Your task to perform on an android device: turn off priority inbox in the gmail app Image 0: 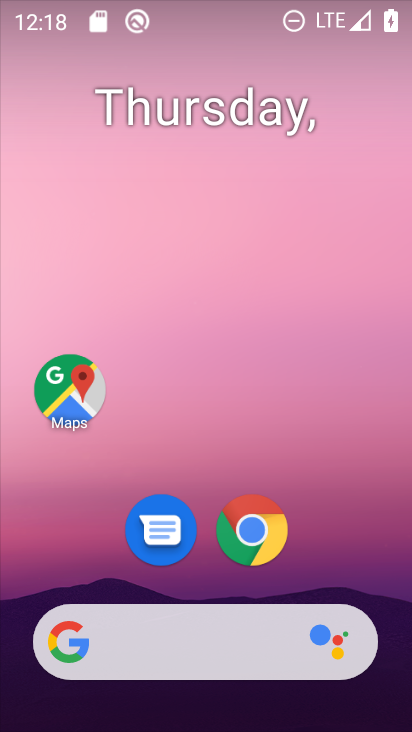
Step 0: drag from (192, 629) to (5, 83)
Your task to perform on an android device: turn off priority inbox in the gmail app Image 1: 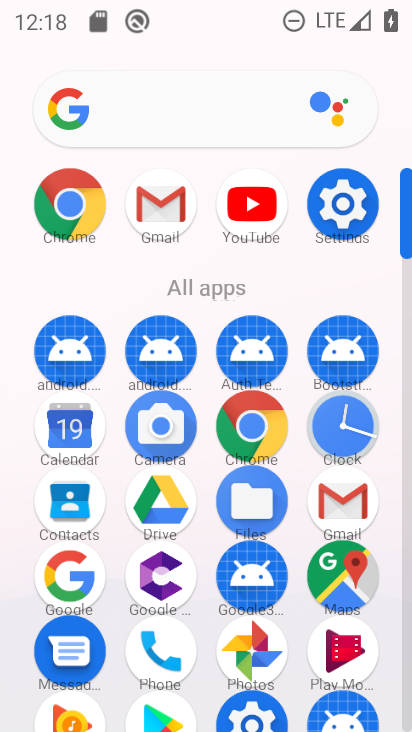
Step 1: click (149, 196)
Your task to perform on an android device: turn off priority inbox in the gmail app Image 2: 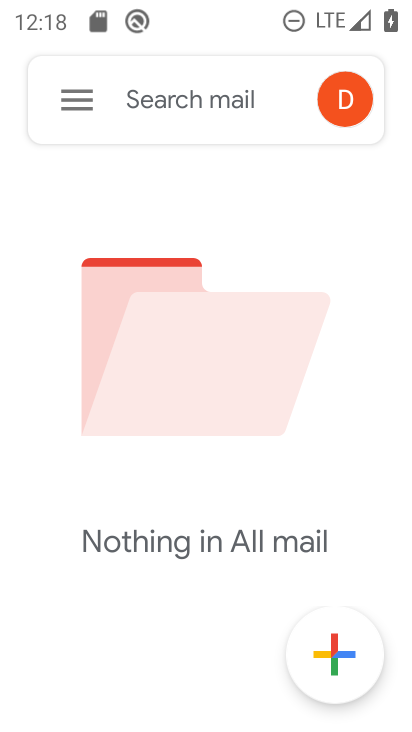
Step 2: click (82, 101)
Your task to perform on an android device: turn off priority inbox in the gmail app Image 3: 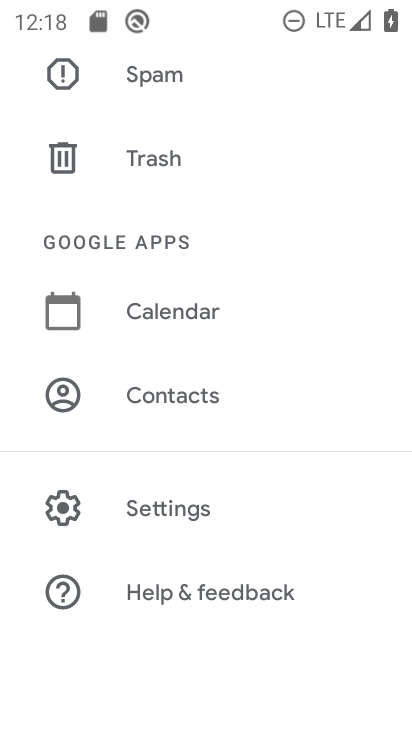
Step 3: click (163, 505)
Your task to perform on an android device: turn off priority inbox in the gmail app Image 4: 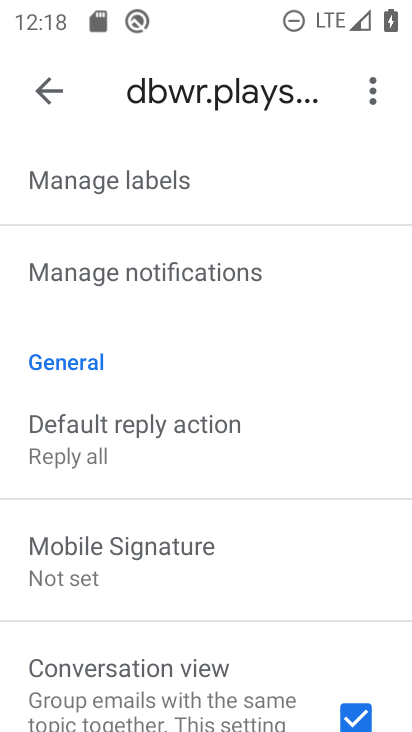
Step 4: drag from (227, 620) to (194, 61)
Your task to perform on an android device: turn off priority inbox in the gmail app Image 5: 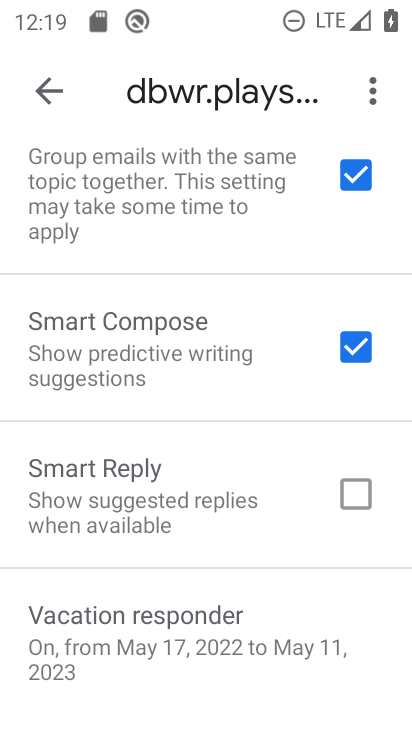
Step 5: drag from (116, 216) to (57, 731)
Your task to perform on an android device: turn off priority inbox in the gmail app Image 6: 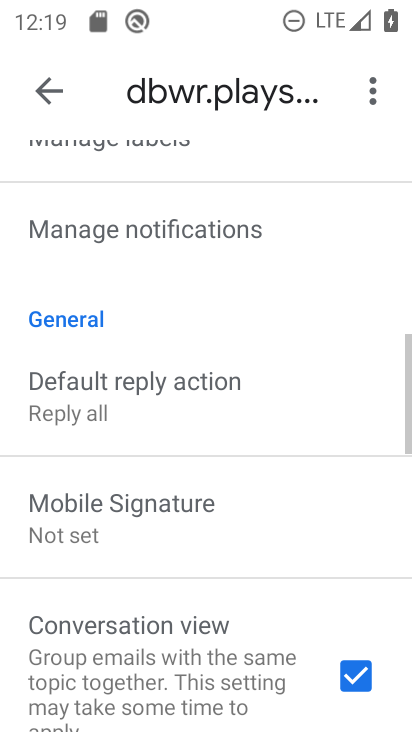
Step 6: drag from (152, 208) to (192, 704)
Your task to perform on an android device: turn off priority inbox in the gmail app Image 7: 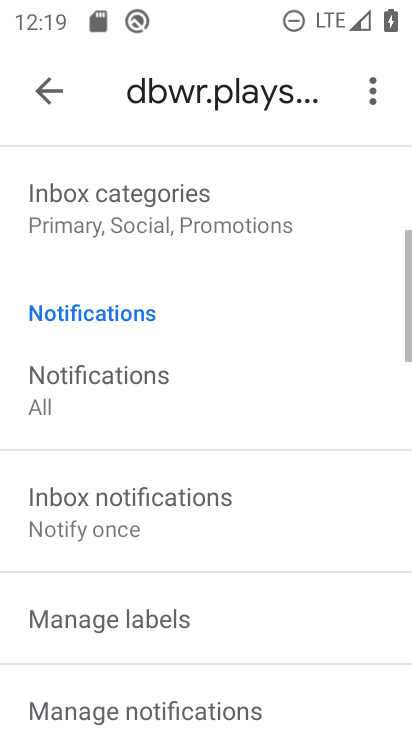
Step 7: drag from (156, 331) to (181, 680)
Your task to perform on an android device: turn off priority inbox in the gmail app Image 8: 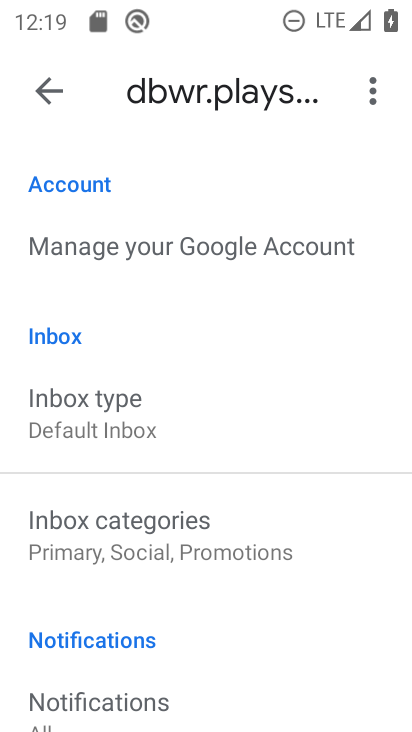
Step 8: drag from (81, 235) to (139, 613)
Your task to perform on an android device: turn off priority inbox in the gmail app Image 9: 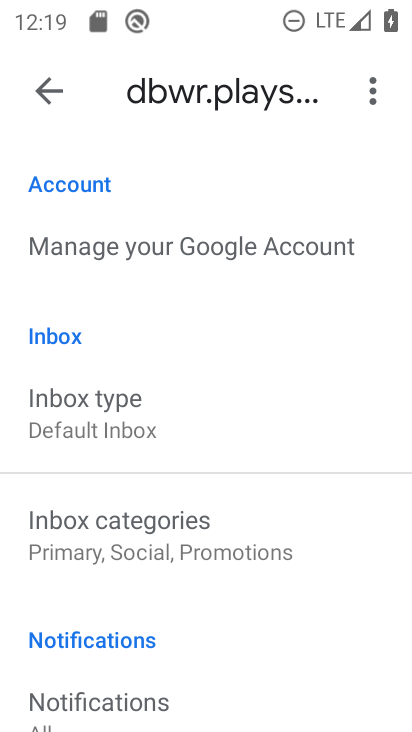
Step 9: click (119, 419)
Your task to perform on an android device: turn off priority inbox in the gmail app Image 10: 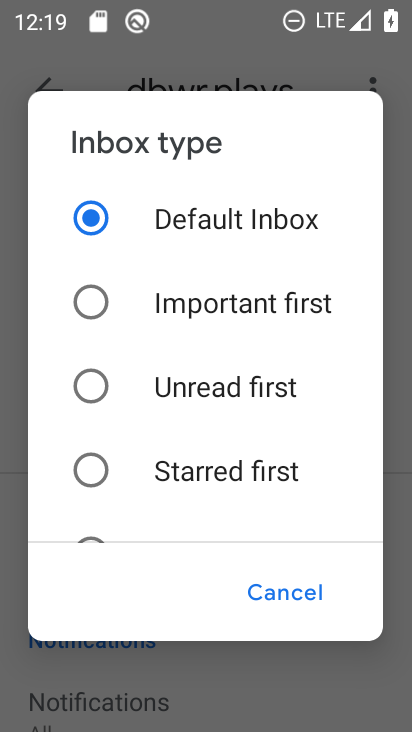
Step 10: click (128, 220)
Your task to perform on an android device: turn off priority inbox in the gmail app Image 11: 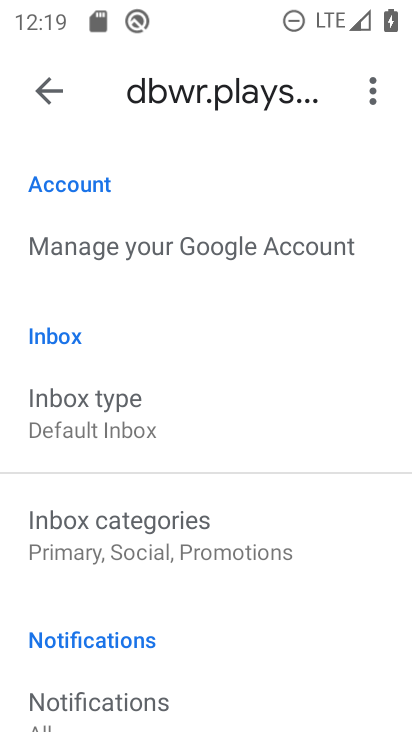
Step 11: task complete